Your task to perform on an android device: Go to privacy settings Image 0: 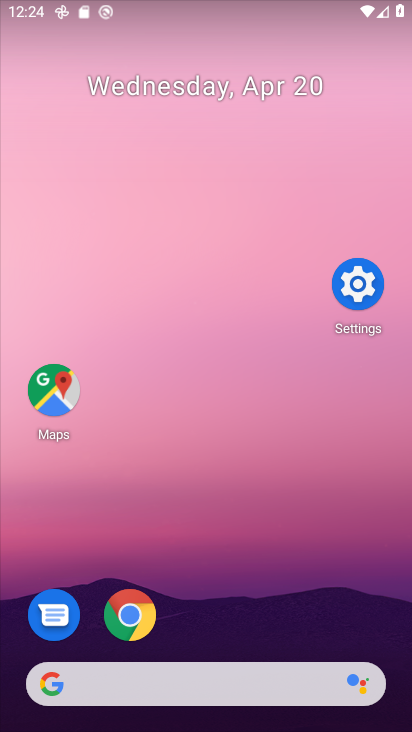
Step 0: click (361, 267)
Your task to perform on an android device: Go to privacy settings Image 1: 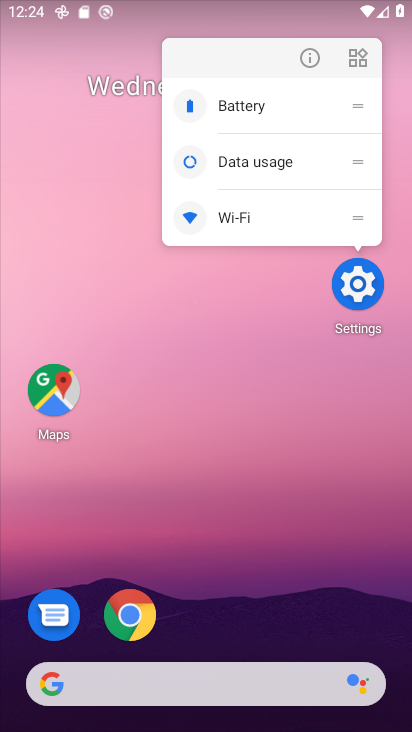
Step 1: click (312, 59)
Your task to perform on an android device: Go to privacy settings Image 2: 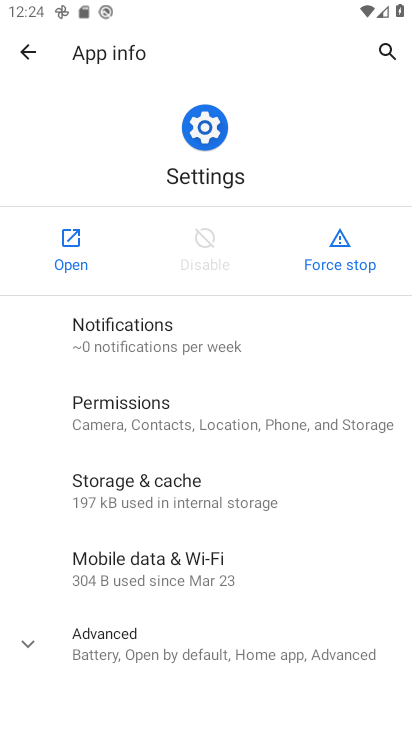
Step 2: click (65, 242)
Your task to perform on an android device: Go to privacy settings Image 3: 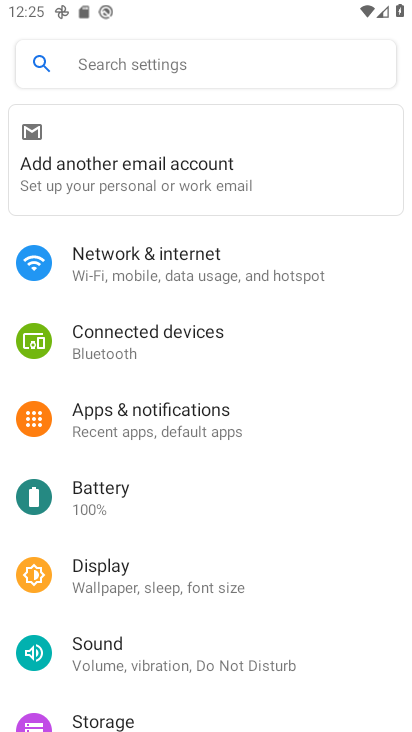
Step 3: drag from (191, 605) to (268, 127)
Your task to perform on an android device: Go to privacy settings Image 4: 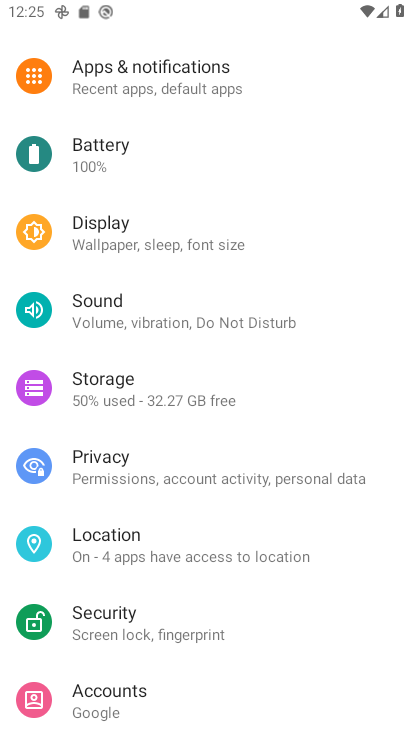
Step 4: click (162, 455)
Your task to perform on an android device: Go to privacy settings Image 5: 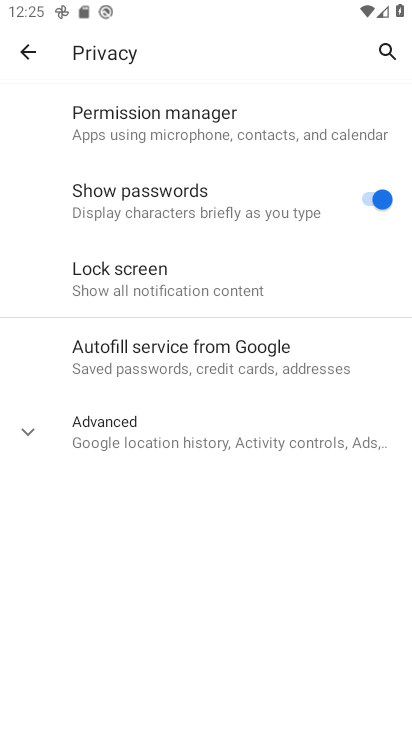
Step 5: drag from (220, 496) to (250, 179)
Your task to perform on an android device: Go to privacy settings Image 6: 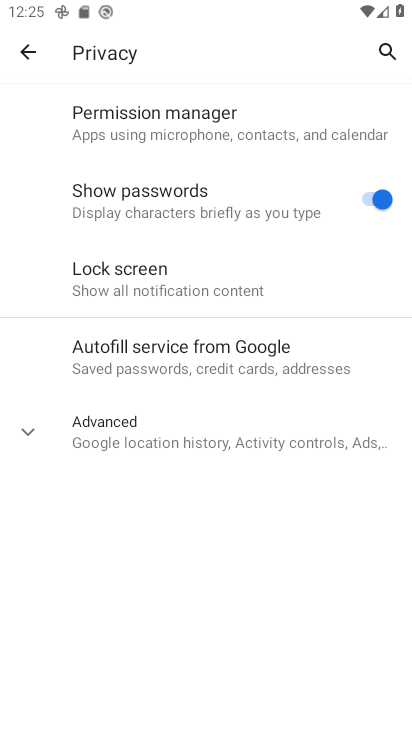
Step 6: click (99, 434)
Your task to perform on an android device: Go to privacy settings Image 7: 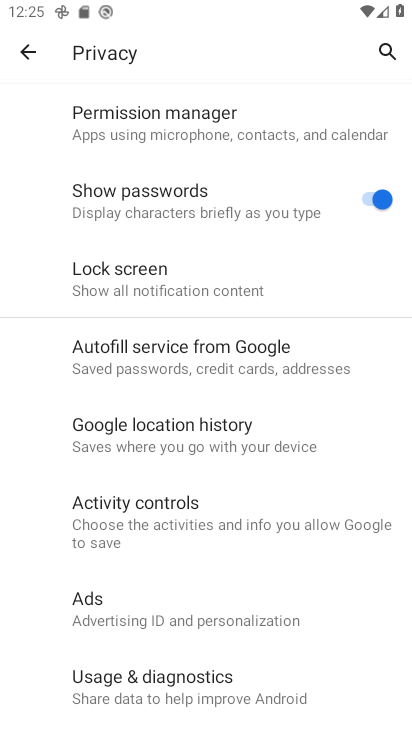
Step 7: task complete